Your task to perform on an android device: Open the phone app and click the voicemail tab. Image 0: 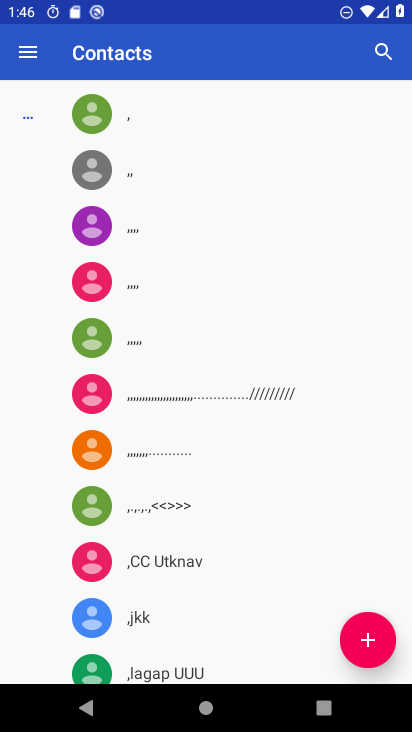
Step 0: press home button
Your task to perform on an android device: Open the phone app and click the voicemail tab. Image 1: 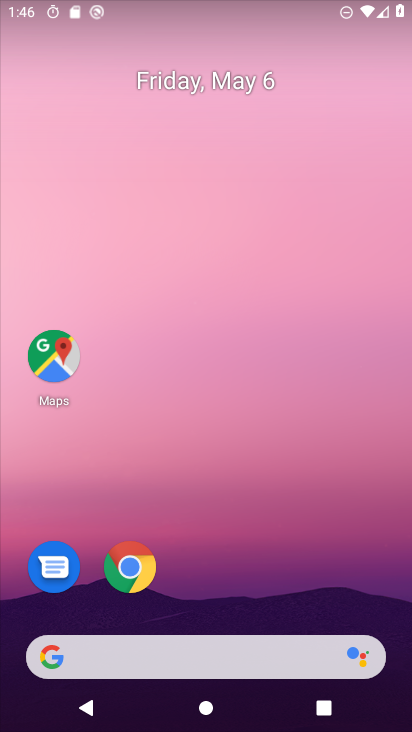
Step 1: drag from (266, 693) to (288, 231)
Your task to perform on an android device: Open the phone app and click the voicemail tab. Image 2: 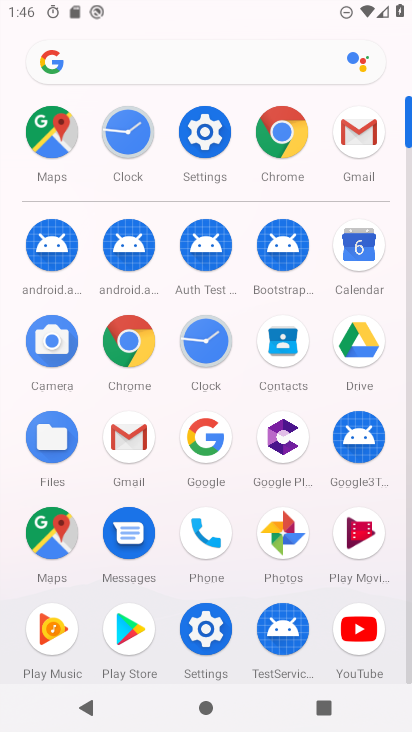
Step 2: click (194, 528)
Your task to perform on an android device: Open the phone app and click the voicemail tab. Image 3: 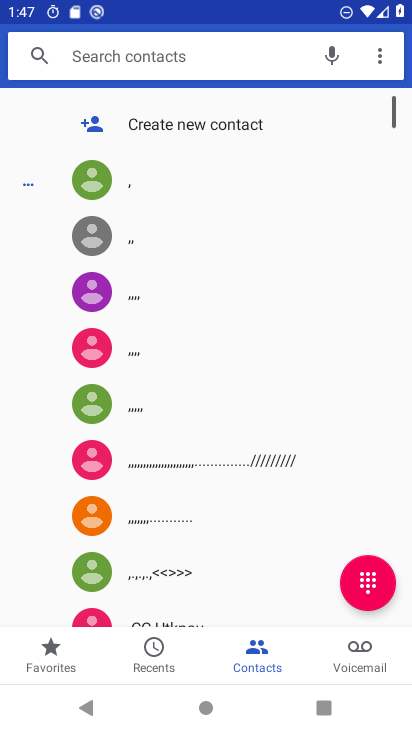
Step 3: click (335, 667)
Your task to perform on an android device: Open the phone app and click the voicemail tab. Image 4: 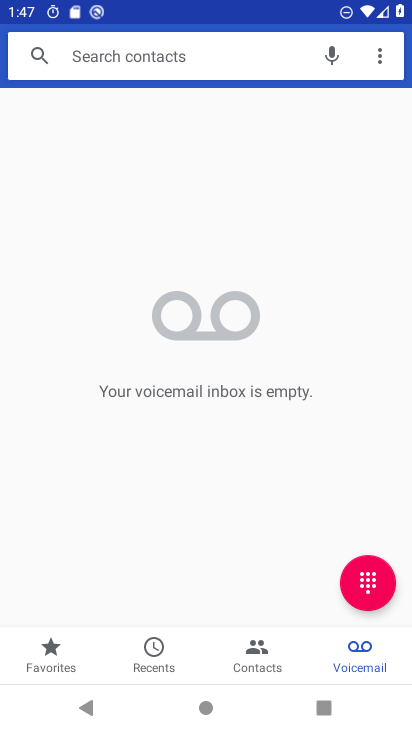
Step 4: task complete